Your task to perform on an android device: Search for sushi restaurants on Maps Image 0: 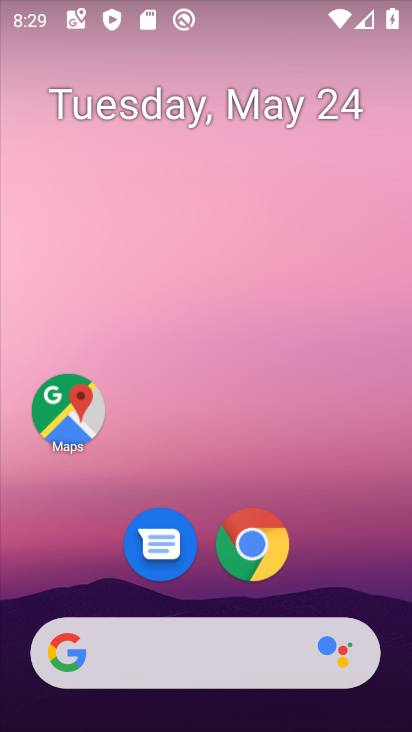
Step 0: click (93, 423)
Your task to perform on an android device: Search for sushi restaurants on Maps Image 1: 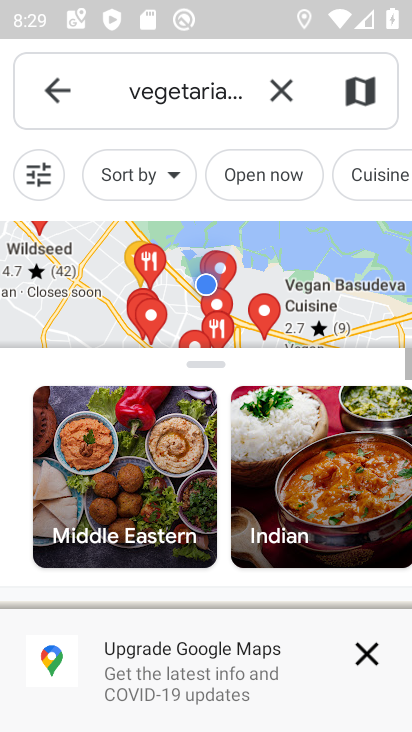
Step 1: click (284, 89)
Your task to perform on an android device: Search for sushi restaurants on Maps Image 2: 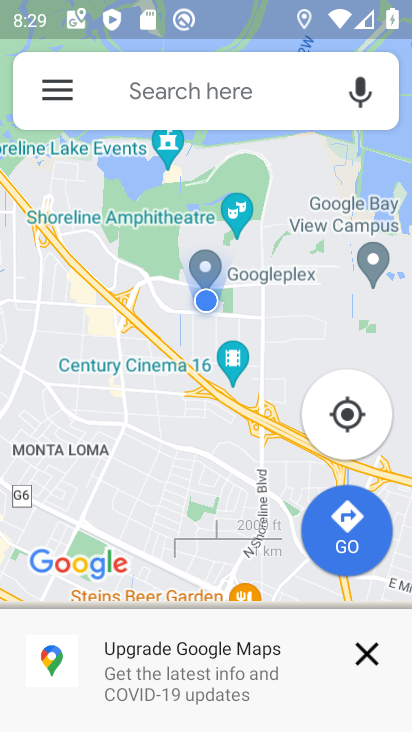
Step 2: click (194, 88)
Your task to perform on an android device: Search for sushi restaurants on Maps Image 3: 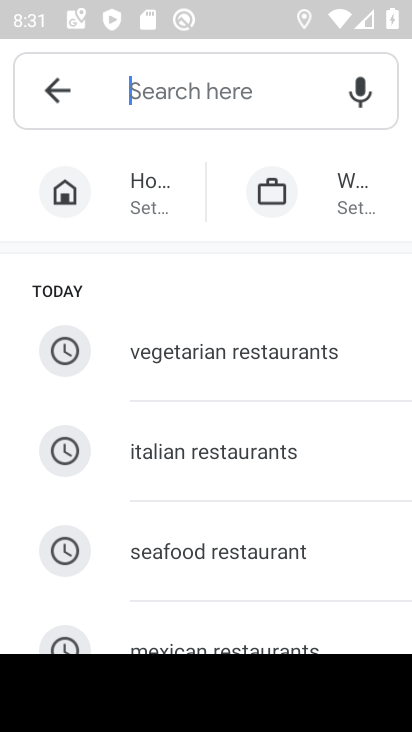
Step 3: click (181, 80)
Your task to perform on an android device: Search for sushi restaurants on Maps Image 4: 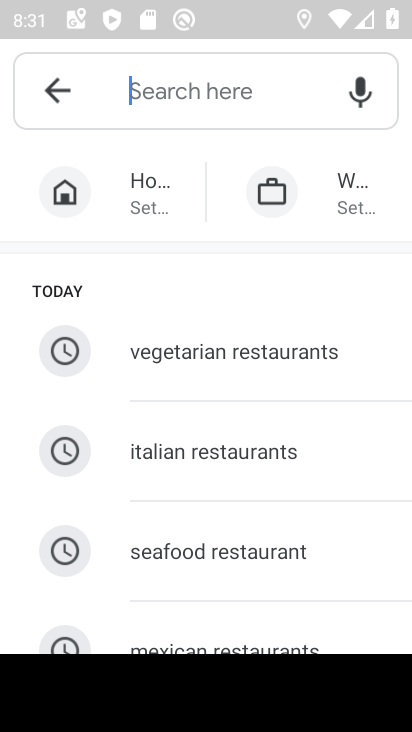
Step 4: type "sushi restaurants"
Your task to perform on an android device: Search for sushi restaurants on Maps Image 5: 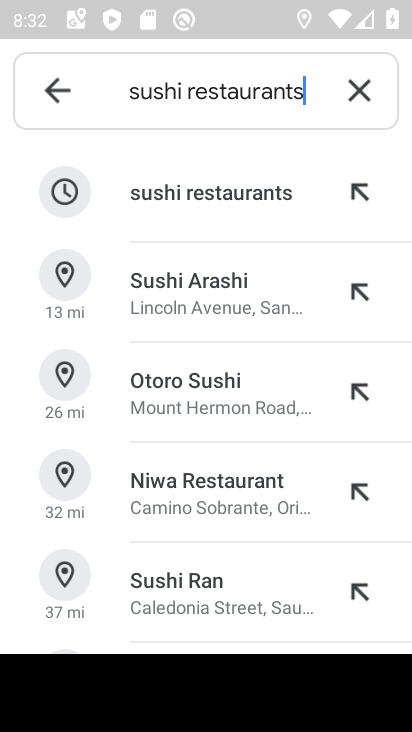
Step 5: click (245, 182)
Your task to perform on an android device: Search for sushi restaurants on Maps Image 6: 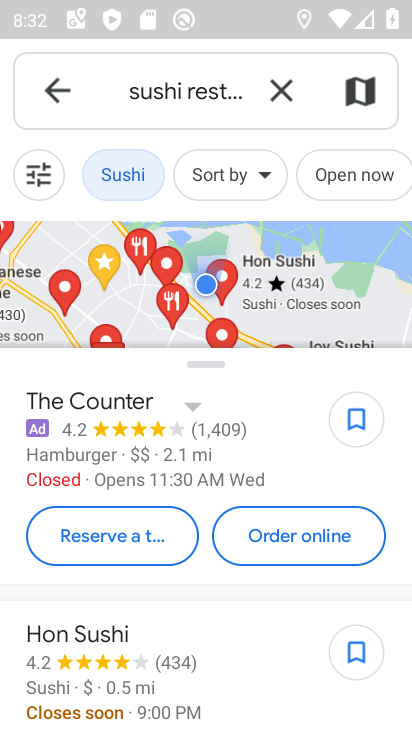
Step 6: task complete